Your task to perform on an android device: change the clock display to digital Image 0: 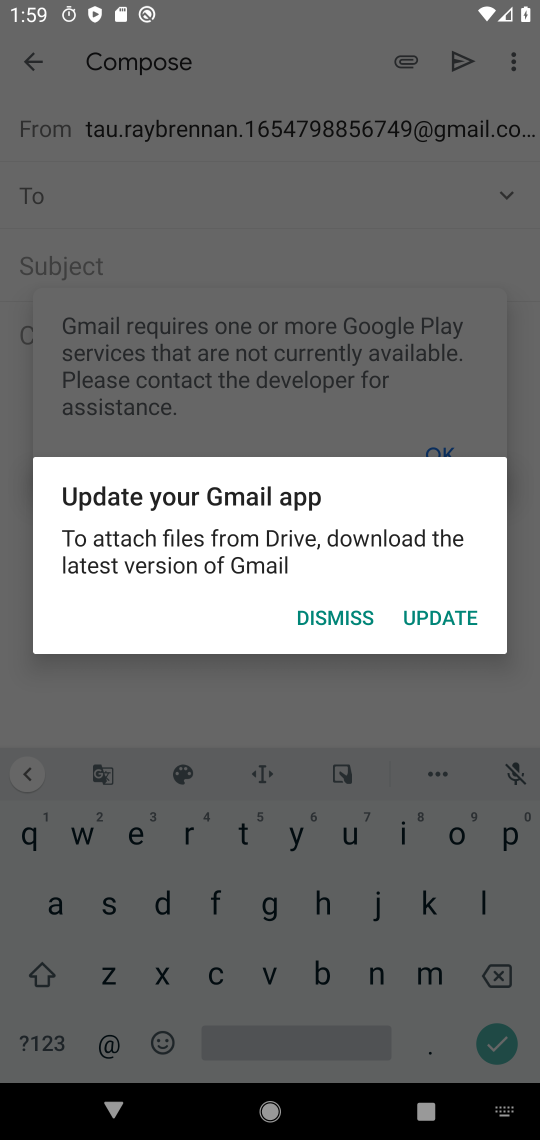
Step 0: press home button
Your task to perform on an android device: change the clock display to digital Image 1: 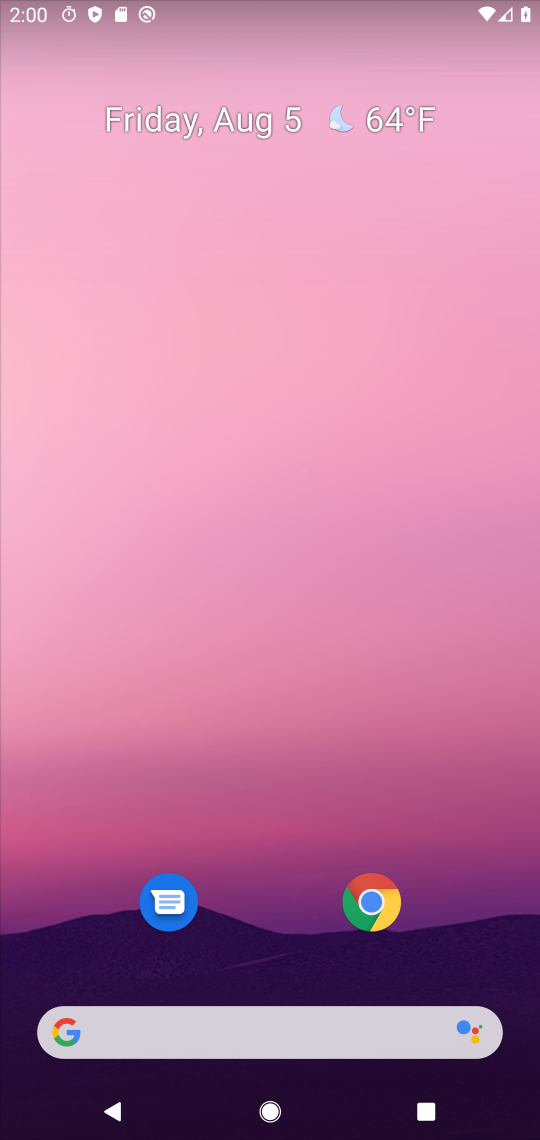
Step 1: drag from (361, 1085) to (146, 243)
Your task to perform on an android device: change the clock display to digital Image 2: 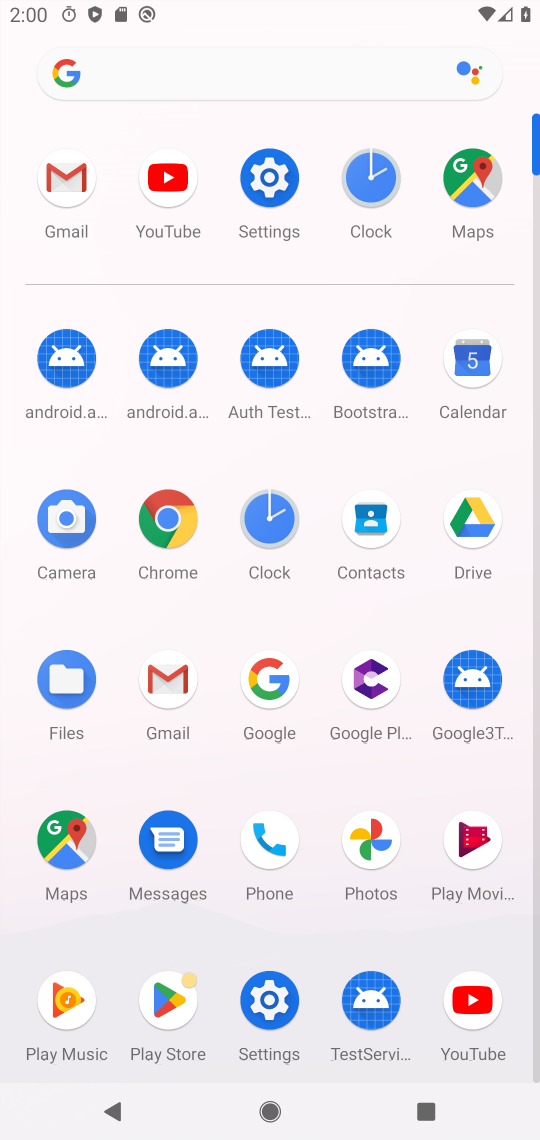
Step 2: click (372, 184)
Your task to perform on an android device: change the clock display to digital Image 3: 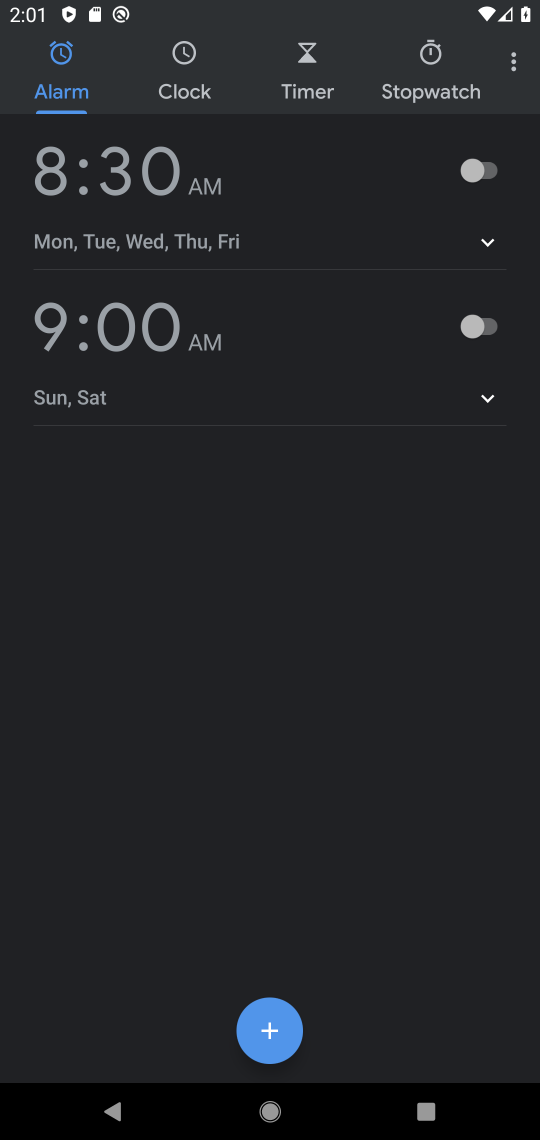
Step 3: click (489, 71)
Your task to perform on an android device: change the clock display to digital Image 4: 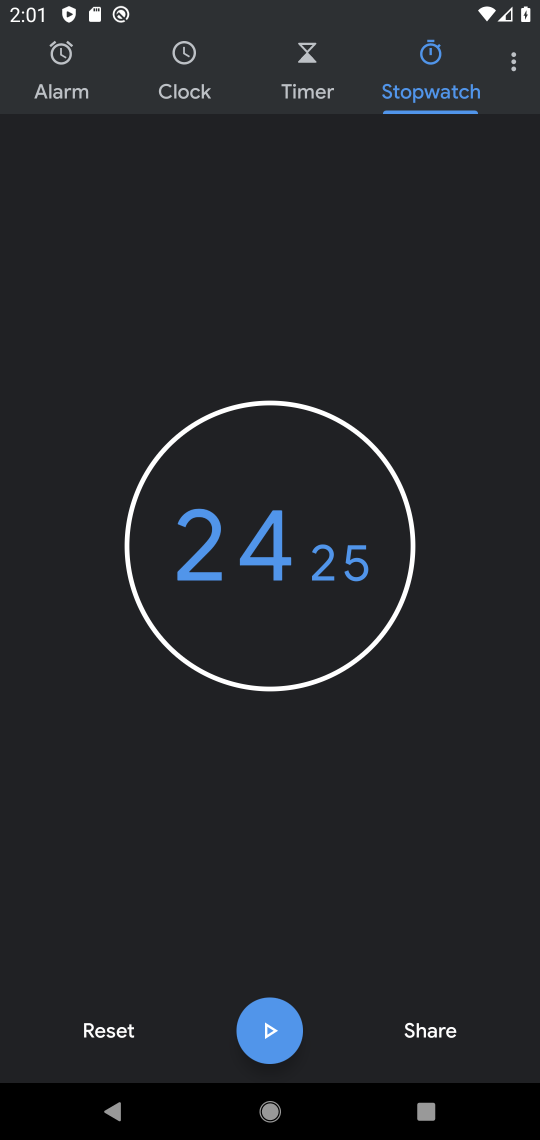
Step 4: click (529, 67)
Your task to perform on an android device: change the clock display to digital Image 5: 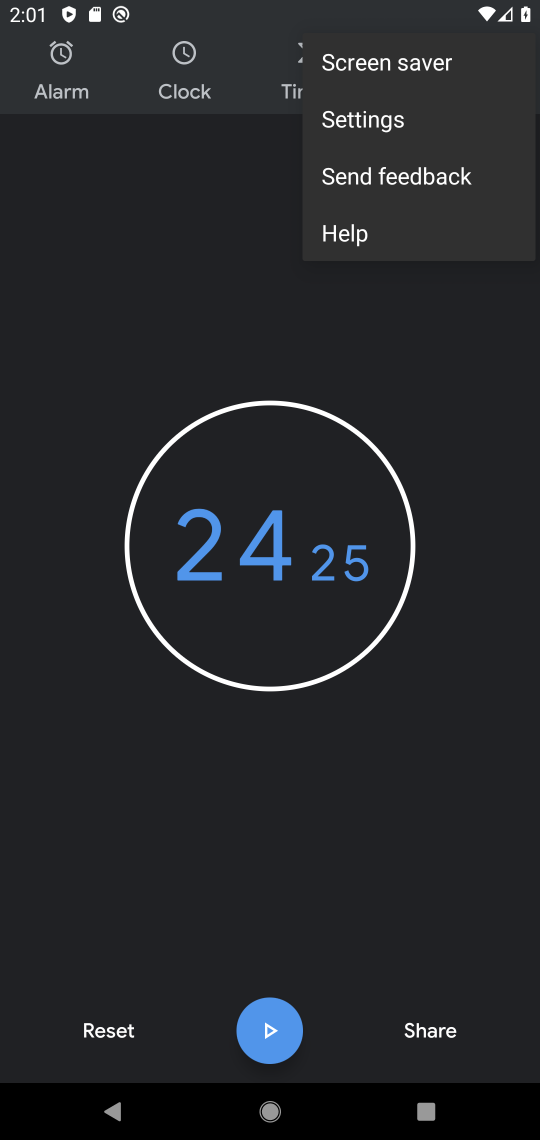
Step 5: click (420, 127)
Your task to perform on an android device: change the clock display to digital Image 6: 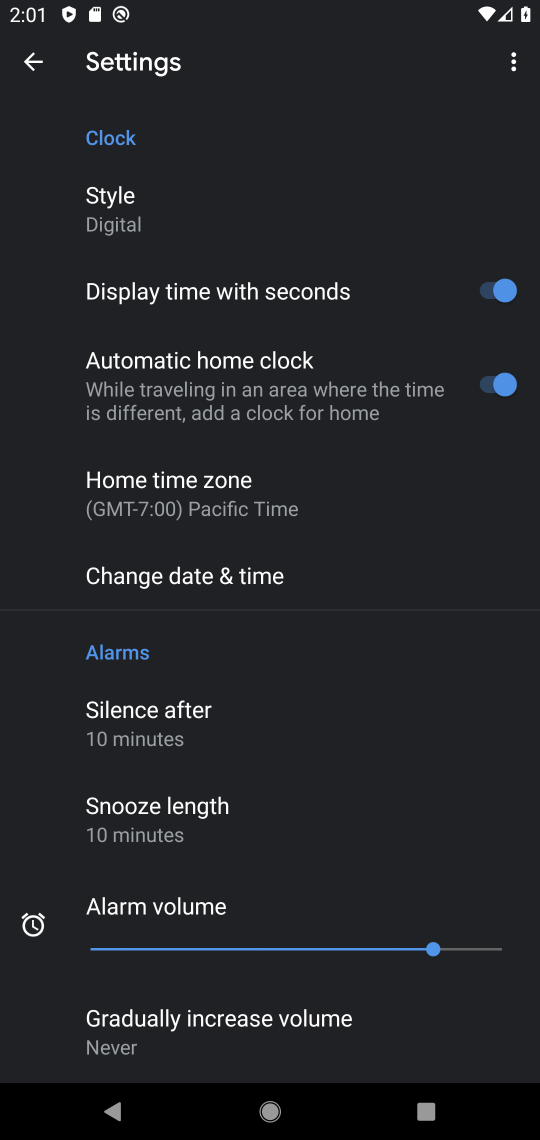
Step 6: click (154, 196)
Your task to perform on an android device: change the clock display to digital Image 7: 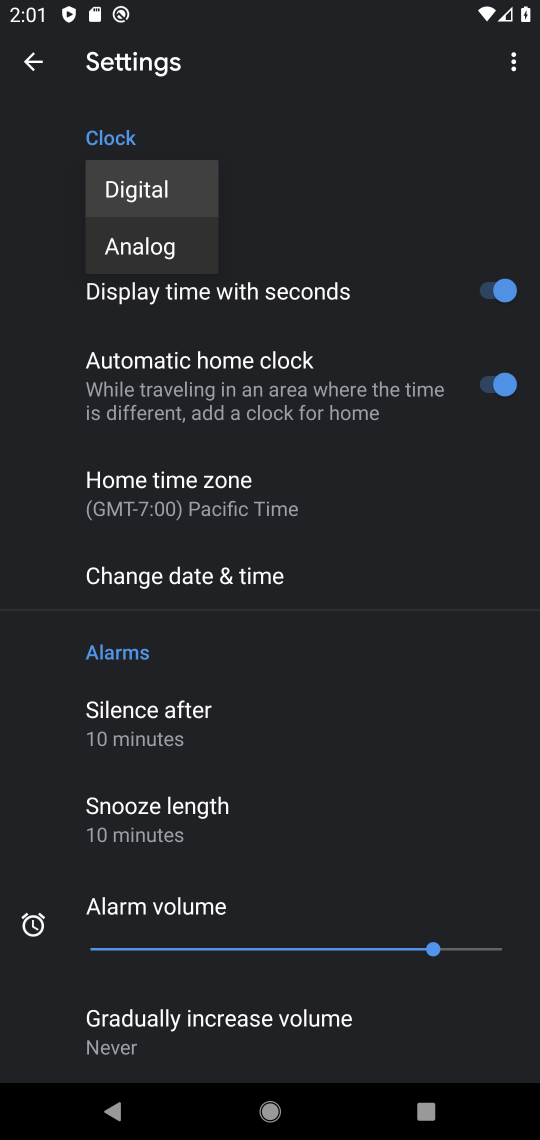
Step 7: click (172, 206)
Your task to perform on an android device: change the clock display to digital Image 8: 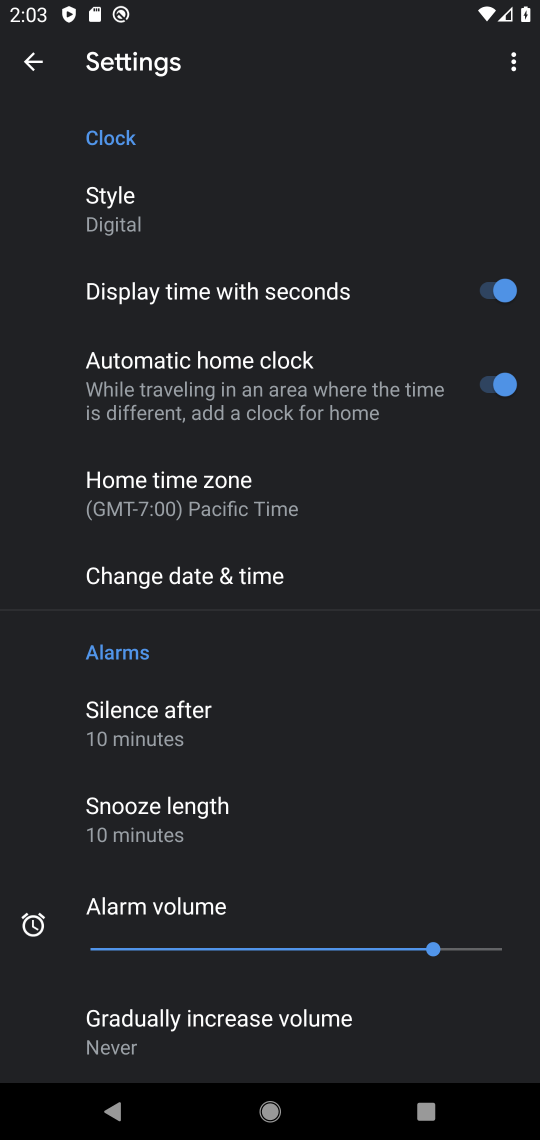
Step 8: task complete